Your task to perform on an android device: Do I have any events today? Image 0: 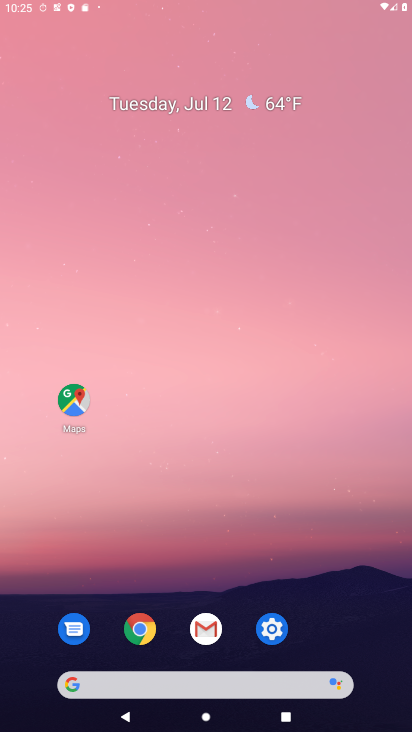
Step 0: press home button
Your task to perform on an android device: Do I have any events today? Image 1: 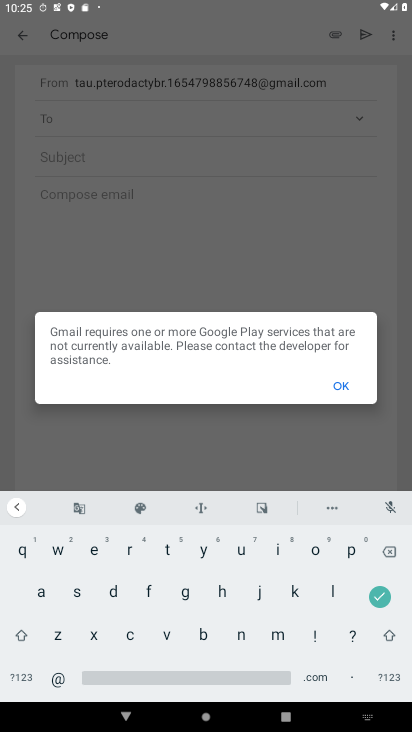
Step 1: click (213, 618)
Your task to perform on an android device: Do I have any events today? Image 2: 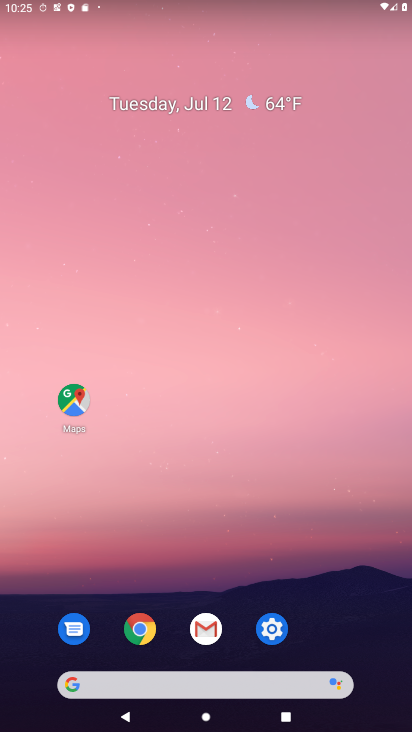
Step 2: click (212, 617)
Your task to perform on an android device: Do I have any events today? Image 3: 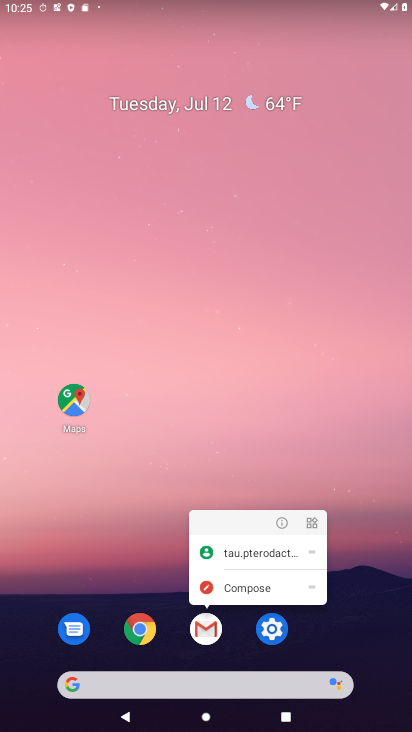
Step 3: click (226, 413)
Your task to perform on an android device: Do I have any events today? Image 4: 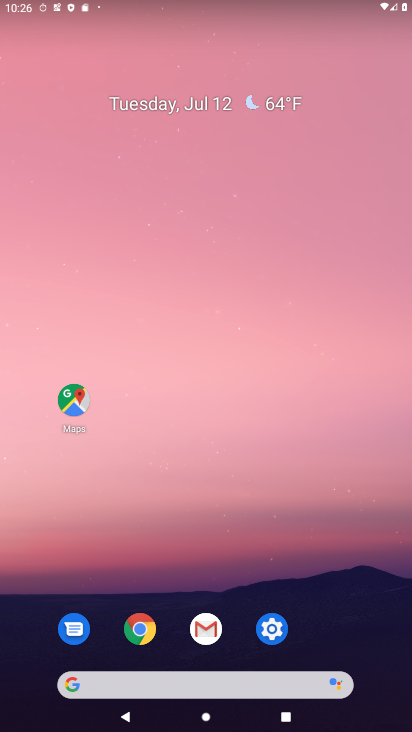
Step 4: drag from (280, 695) to (109, 74)
Your task to perform on an android device: Do I have any events today? Image 5: 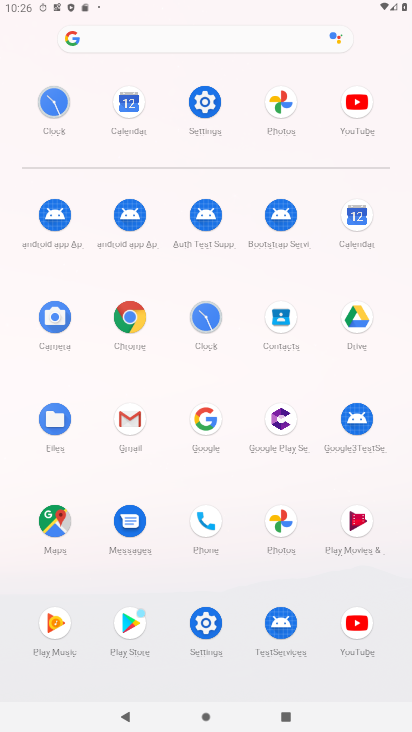
Step 5: click (361, 216)
Your task to perform on an android device: Do I have any events today? Image 6: 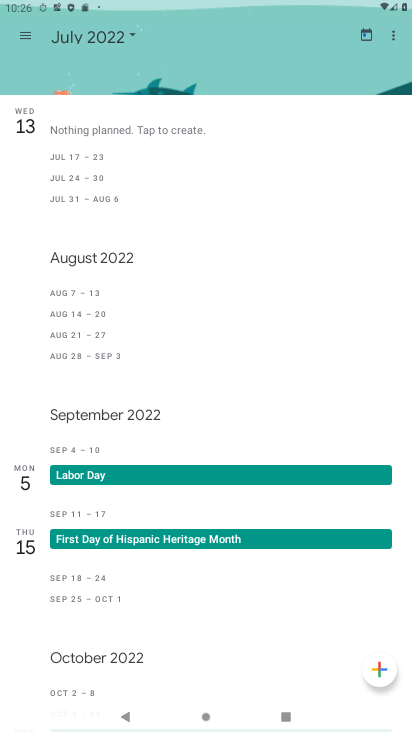
Step 6: click (16, 32)
Your task to perform on an android device: Do I have any events today? Image 7: 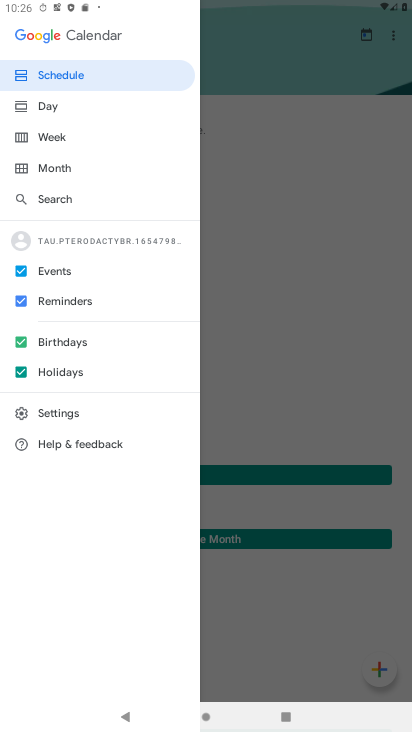
Step 7: click (47, 167)
Your task to perform on an android device: Do I have any events today? Image 8: 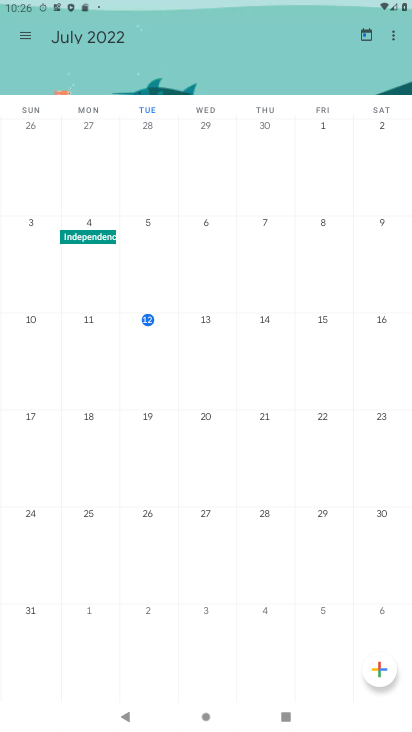
Step 8: click (149, 324)
Your task to perform on an android device: Do I have any events today? Image 9: 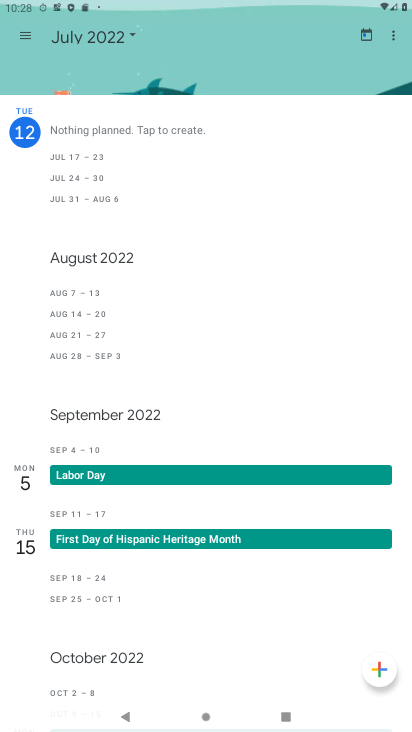
Step 9: task complete